Your task to perform on an android device: Open privacy settings Image 0: 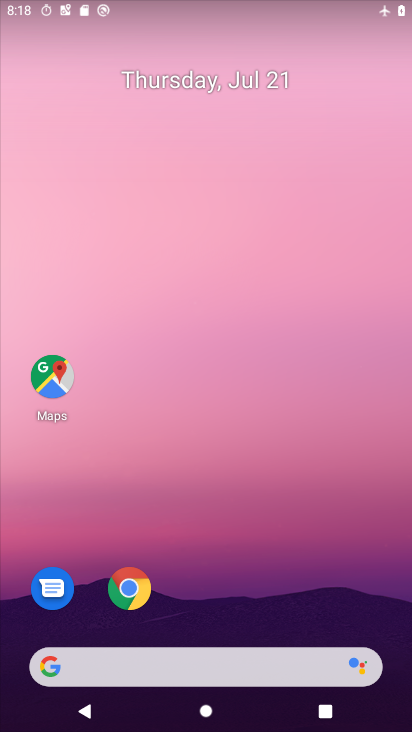
Step 0: click (143, 321)
Your task to perform on an android device: Open privacy settings Image 1: 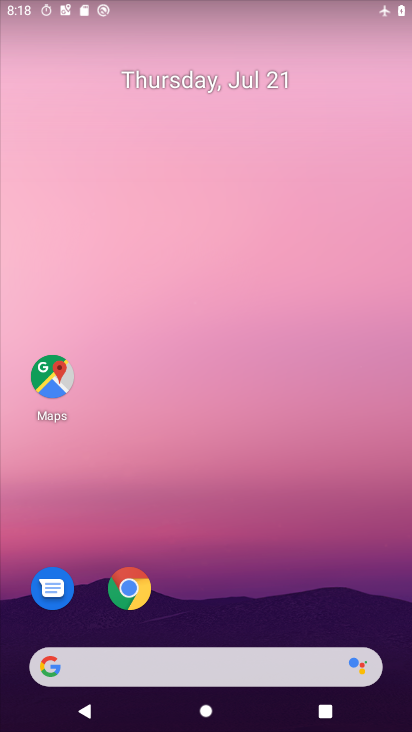
Step 1: drag from (273, 646) to (243, 331)
Your task to perform on an android device: Open privacy settings Image 2: 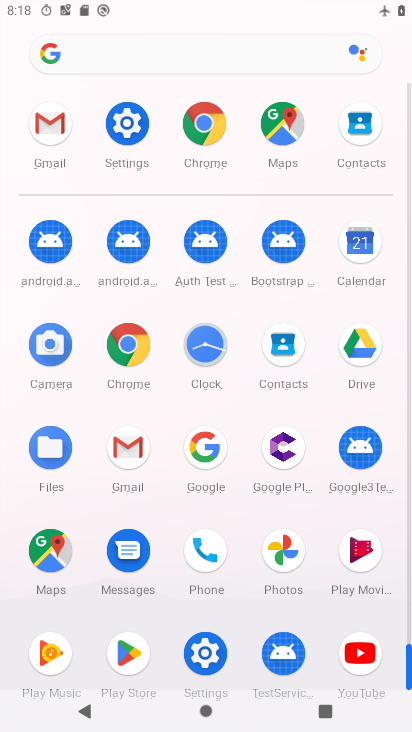
Step 2: click (131, 128)
Your task to perform on an android device: Open privacy settings Image 3: 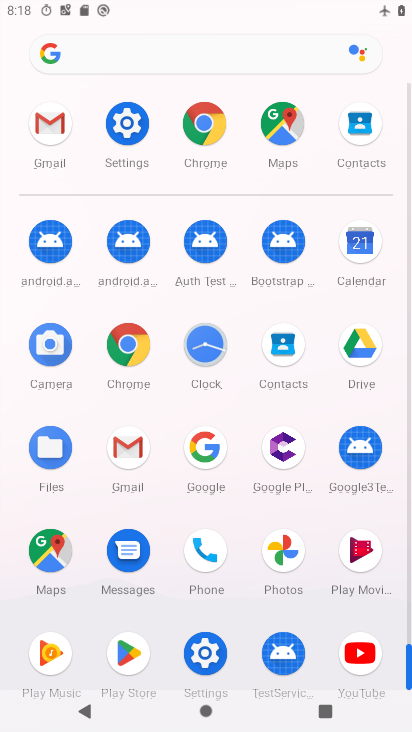
Step 3: click (127, 127)
Your task to perform on an android device: Open privacy settings Image 4: 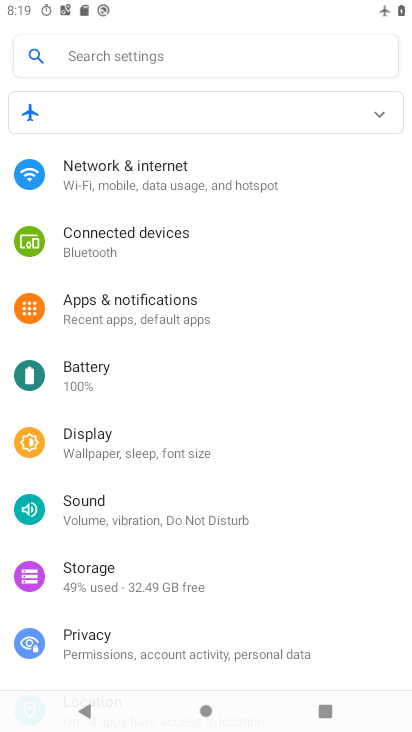
Step 4: click (104, 646)
Your task to perform on an android device: Open privacy settings Image 5: 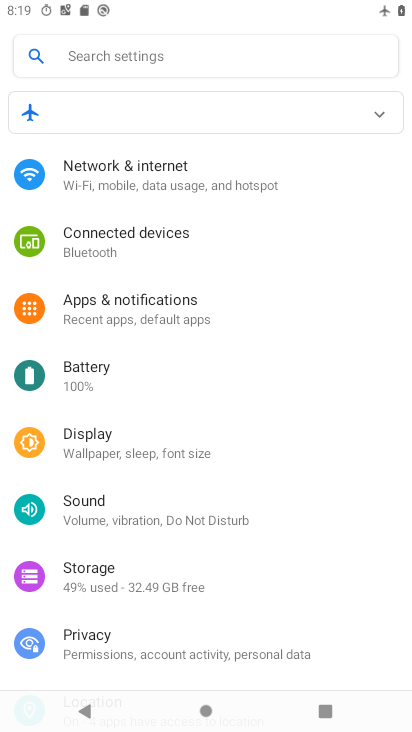
Step 5: click (102, 647)
Your task to perform on an android device: Open privacy settings Image 6: 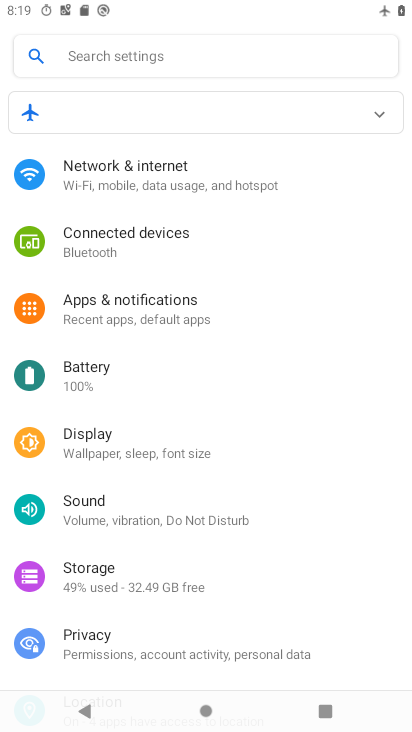
Step 6: click (102, 647)
Your task to perform on an android device: Open privacy settings Image 7: 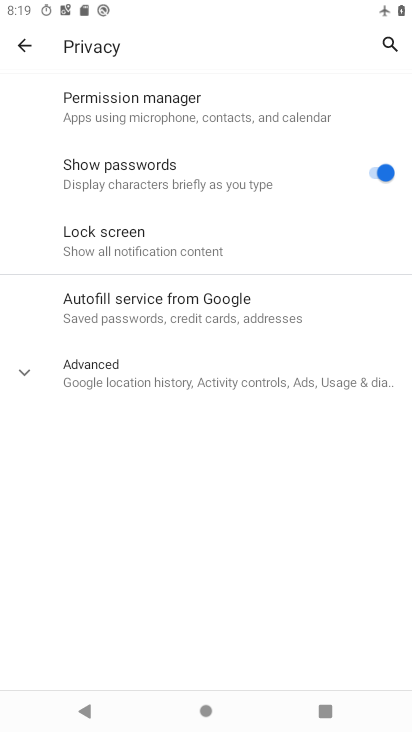
Step 7: task complete